Your task to perform on an android device: stop showing notifications on the lock screen Image 0: 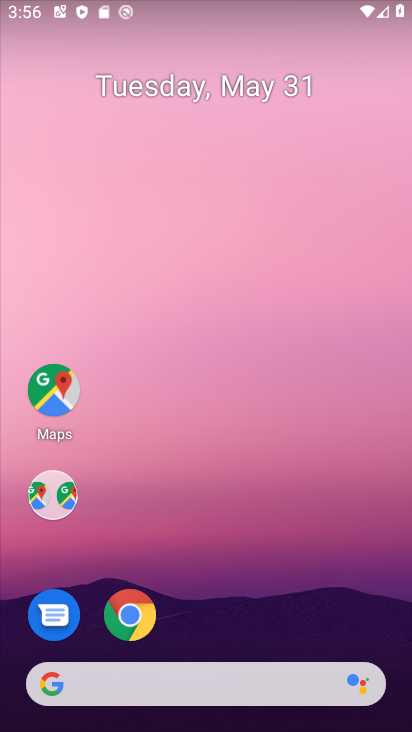
Step 0: drag from (283, 712) to (129, 126)
Your task to perform on an android device: stop showing notifications on the lock screen Image 1: 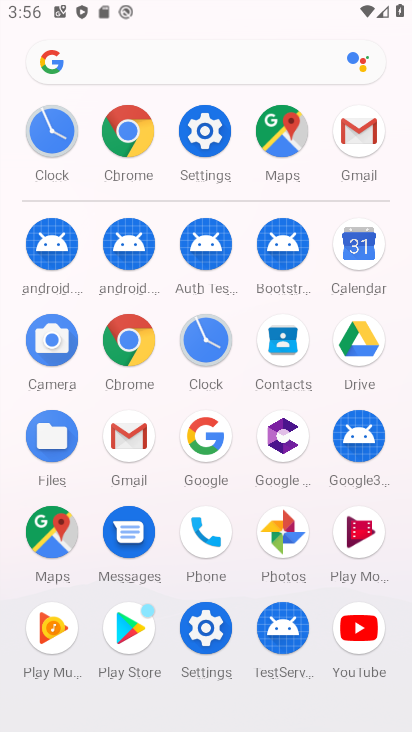
Step 1: click (212, 625)
Your task to perform on an android device: stop showing notifications on the lock screen Image 2: 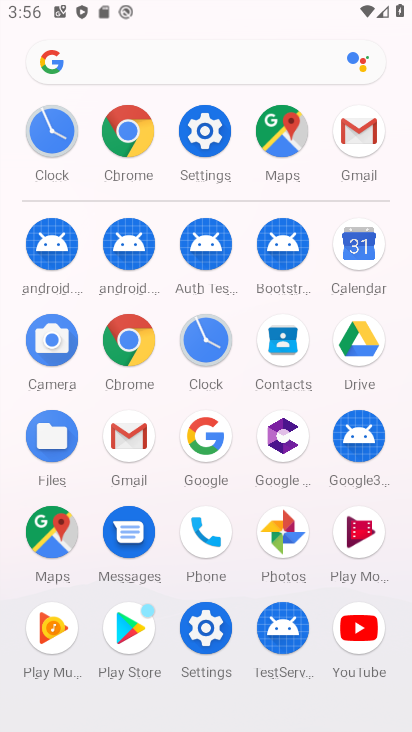
Step 2: click (212, 625)
Your task to perform on an android device: stop showing notifications on the lock screen Image 3: 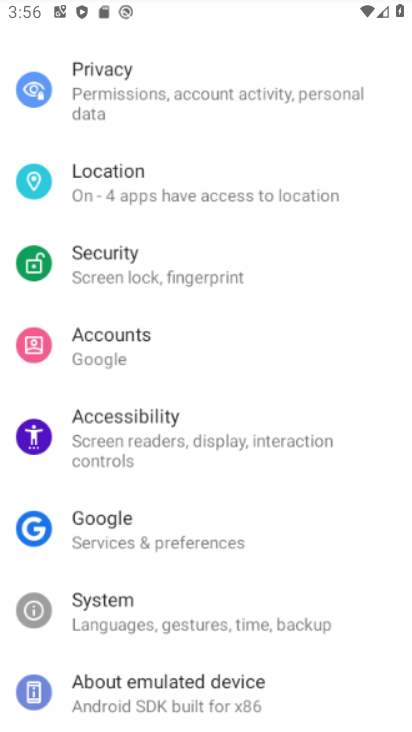
Step 3: click (211, 628)
Your task to perform on an android device: stop showing notifications on the lock screen Image 4: 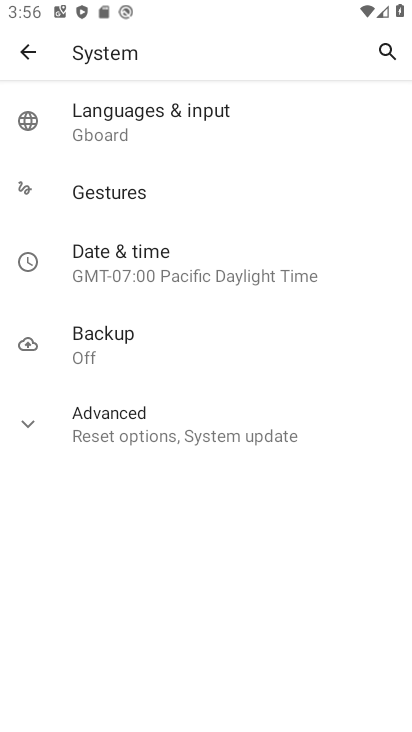
Step 4: click (29, 46)
Your task to perform on an android device: stop showing notifications on the lock screen Image 5: 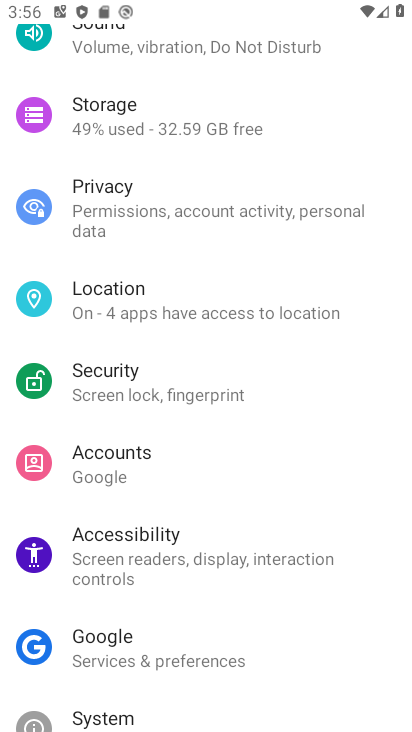
Step 5: drag from (152, 546) to (127, 293)
Your task to perform on an android device: stop showing notifications on the lock screen Image 6: 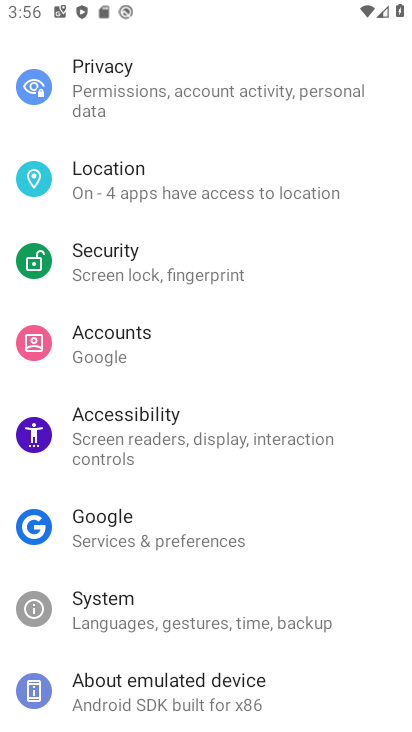
Step 6: drag from (159, 345) to (229, 719)
Your task to perform on an android device: stop showing notifications on the lock screen Image 7: 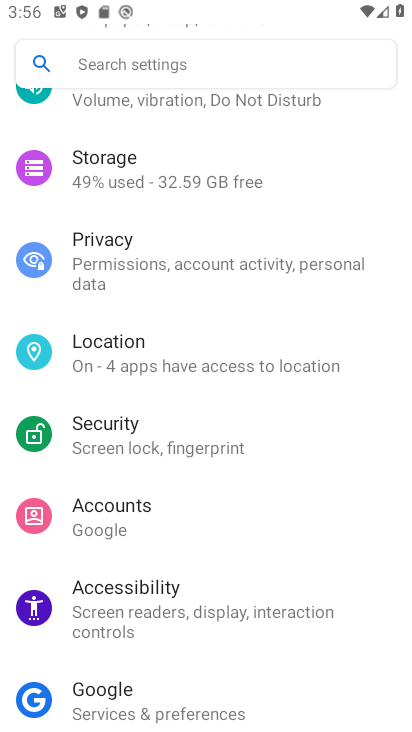
Step 7: drag from (171, 346) to (215, 496)
Your task to perform on an android device: stop showing notifications on the lock screen Image 8: 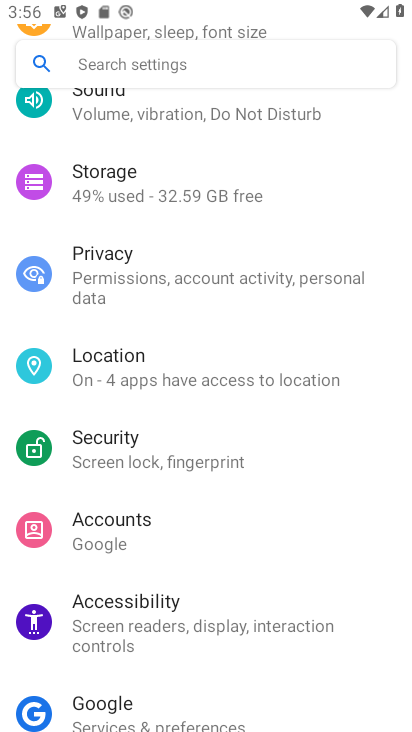
Step 8: drag from (176, 229) to (212, 406)
Your task to perform on an android device: stop showing notifications on the lock screen Image 9: 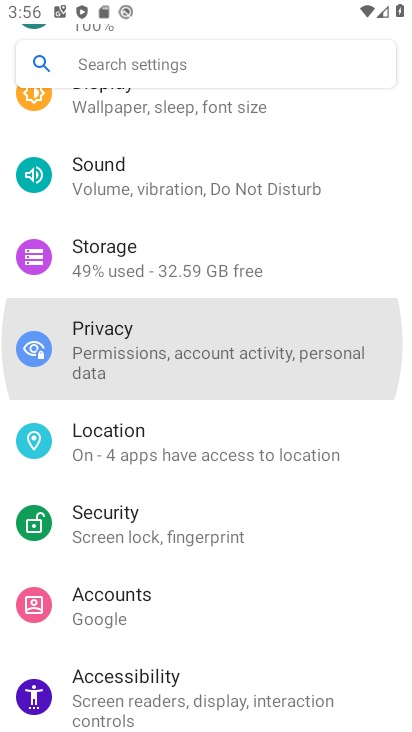
Step 9: drag from (168, 266) to (251, 615)
Your task to perform on an android device: stop showing notifications on the lock screen Image 10: 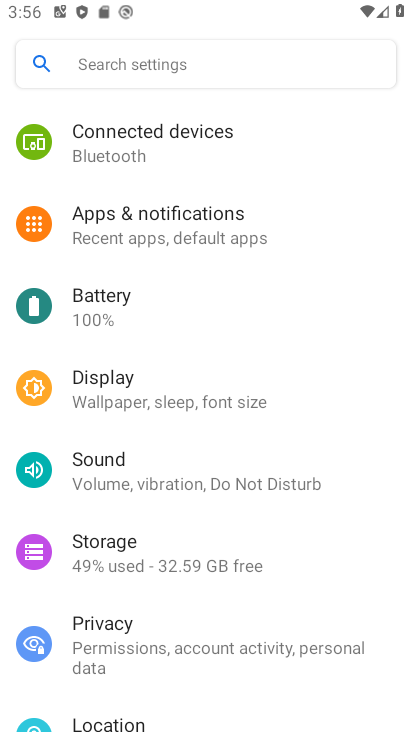
Step 10: click (148, 241)
Your task to perform on an android device: stop showing notifications on the lock screen Image 11: 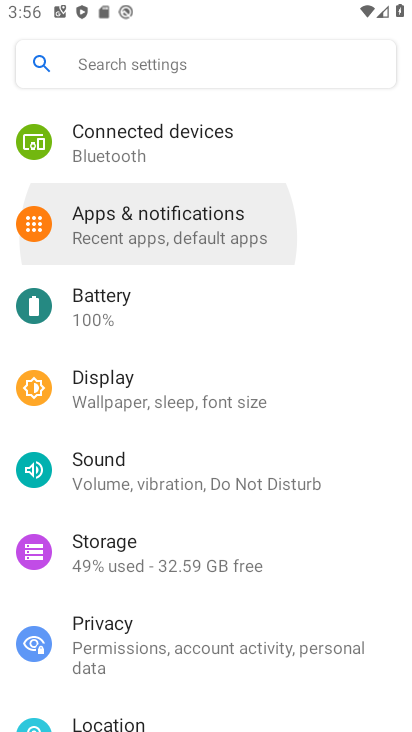
Step 11: click (149, 226)
Your task to perform on an android device: stop showing notifications on the lock screen Image 12: 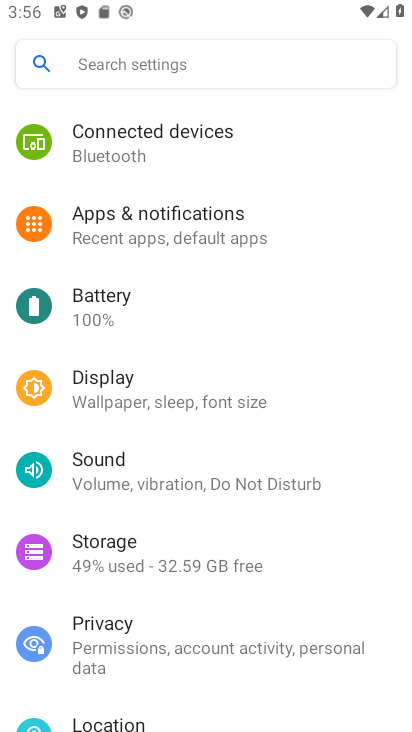
Step 12: click (150, 225)
Your task to perform on an android device: stop showing notifications on the lock screen Image 13: 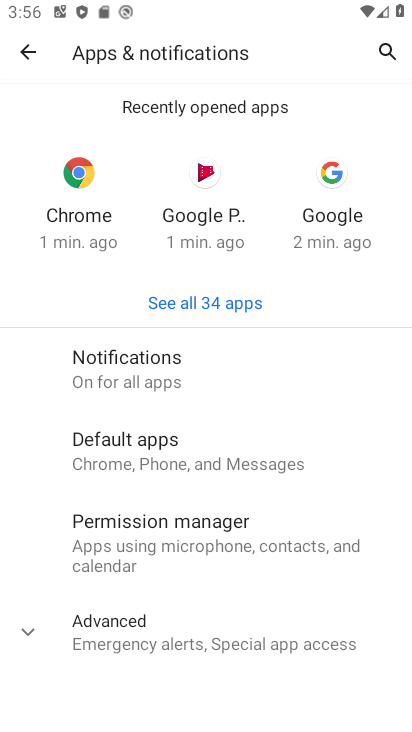
Step 13: click (88, 367)
Your task to perform on an android device: stop showing notifications on the lock screen Image 14: 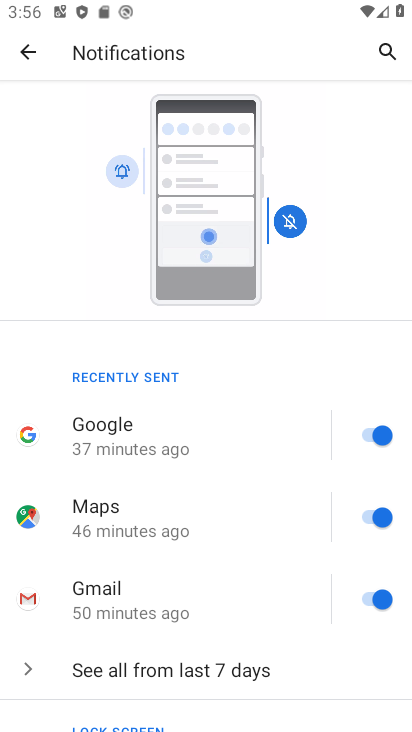
Step 14: drag from (237, 517) to (224, 144)
Your task to perform on an android device: stop showing notifications on the lock screen Image 15: 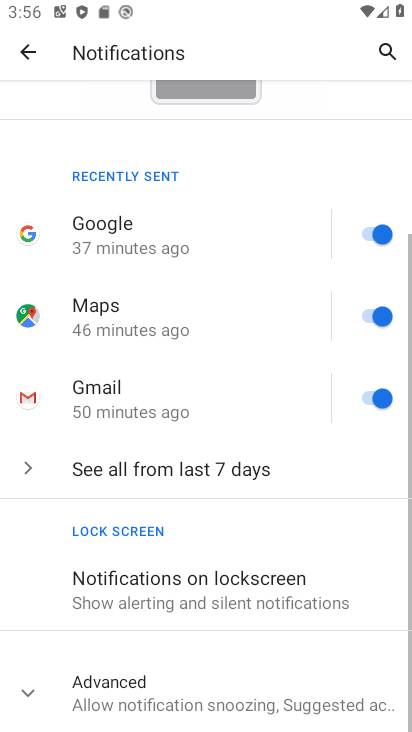
Step 15: drag from (186, 514) to (179, 163)
Your task to perform on an android device: stop showing notifications on the lock screen Image 16: 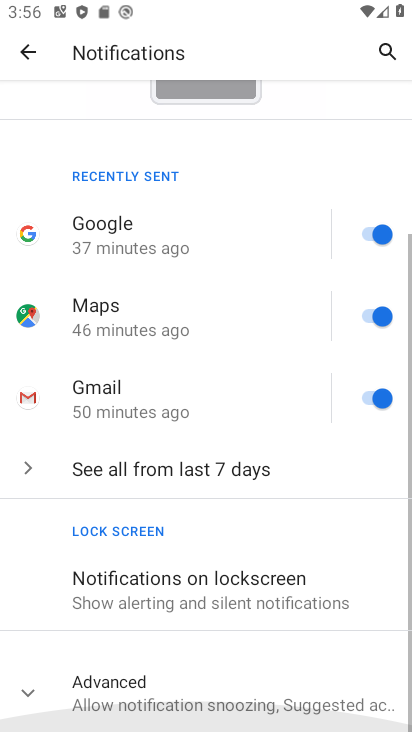
Step 16: drag from (199, 425) to (192, 184)
Your task to perform on an android device: stop showing notifications on the lock screen Image 17: 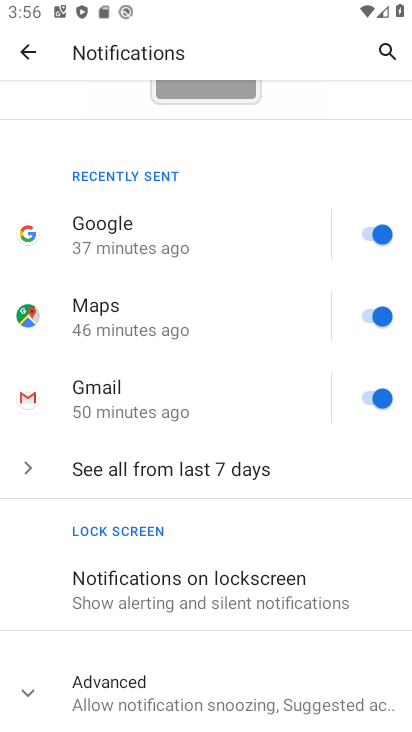
Step 17: click (159, 590)
Your task to perform on an android device: stop showing notifications on the lock screen Image 18: 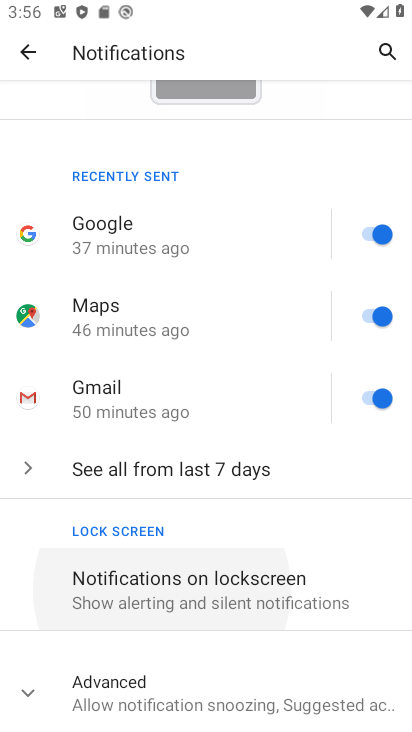
Step 18: click (155, 580)
Your task to perform on an android device: stop showing notifications on the lock screen Image 19: 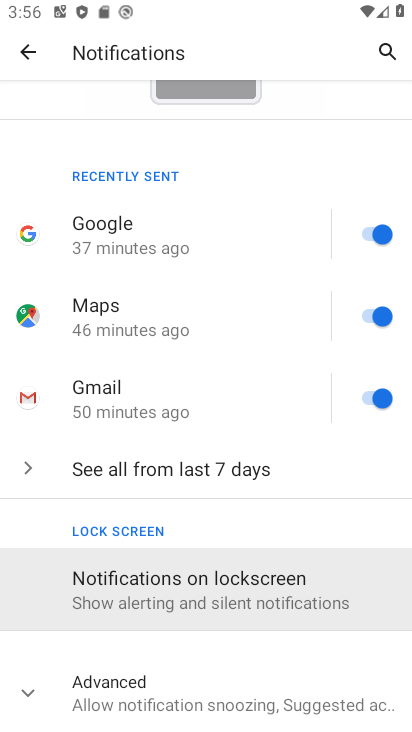
Step 19: click (157, 579)
Your task to perform on an android device: stop showing notifications on the lock screen Image 20: 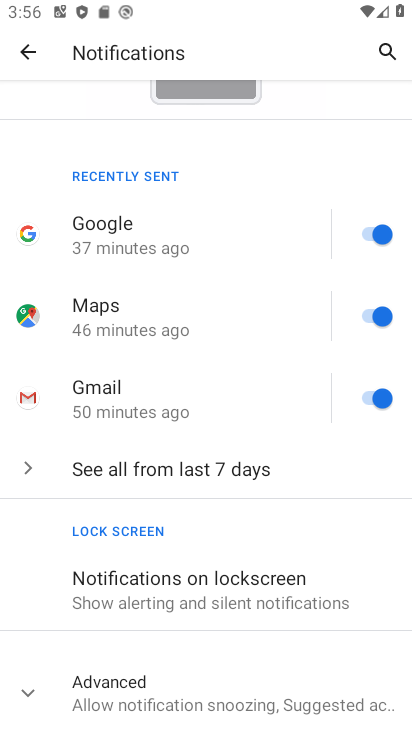
Step 20: task complete